Your task to perform on an android device: Open Google Chrome and open the bookmarks view Image 0: 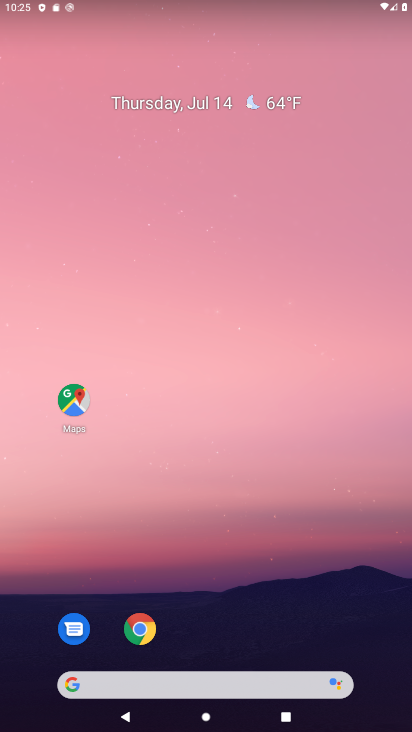
Step 0: drag from (201, 4) to (211, 488)
Your task to perform on an android device: Open Google Chrome and open the bookmarks view Image 1: 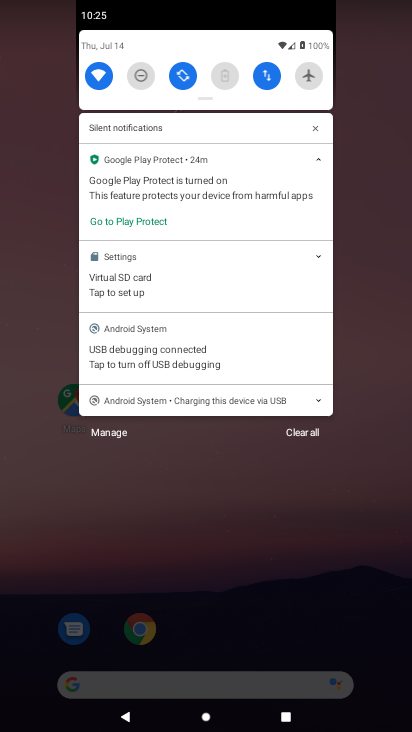
Step 1: click (294, 444)
Your task to perform on an android device: Open Google Chrome and open the bookmarks view Image 2: 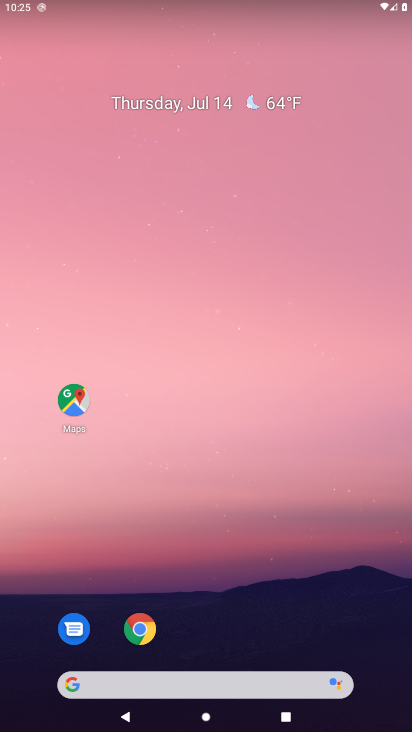
Step 2: click (131, 629)
Your task to perform on an android device: Open Google Chrome and open the bookmarks view Image 3: 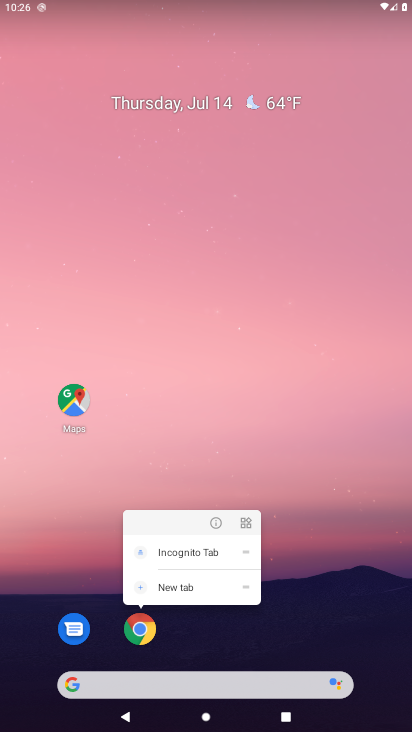
Step 3: click (144, 624)
Your task to perform on an android device: Open Google Chrome and open the bookmarks view Image 4: 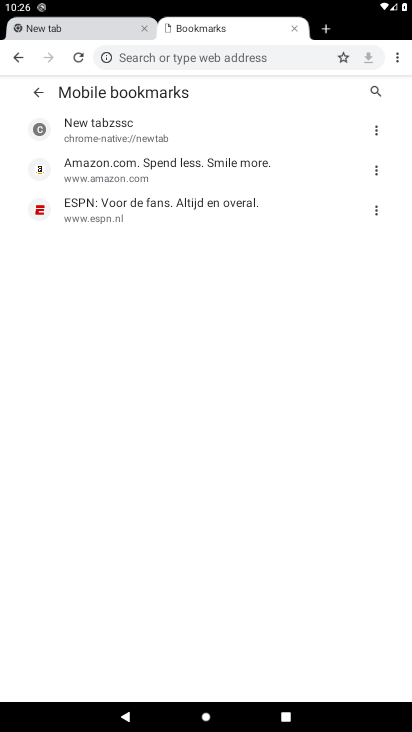
Step 4: click (392, 59)
Your task to perform on an android device: Open Google Chrome and open the bookmarks view Image 5: 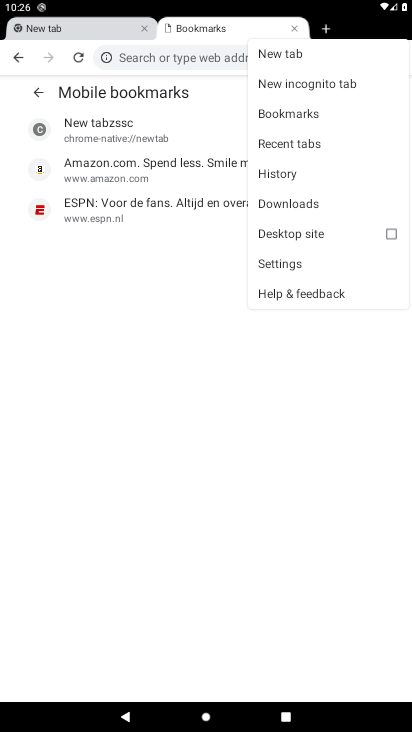
Step 5: click (291, 115)
Your task to perform on an android device: Open Google Chrome and open the bookmarks view Image 6: 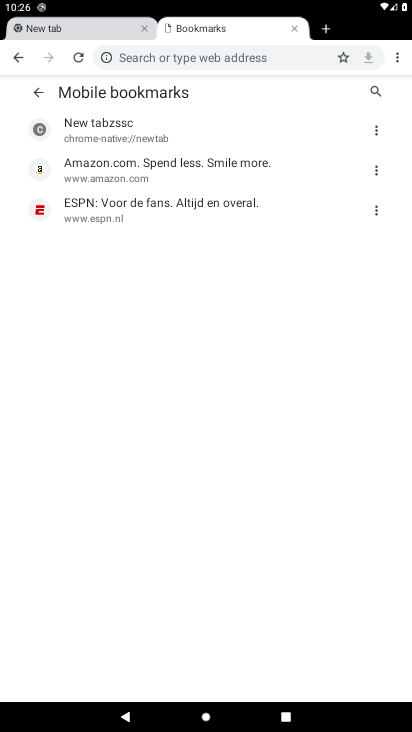
Step 6: task complete